Your task to perform on an android device: Open CNN.com Image 0: 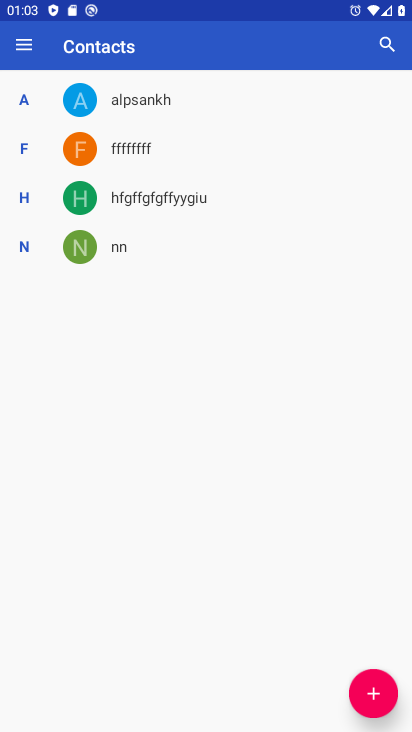
Step 0: press home button
Your task to perform on an android device: Open CNN.com Image 1: 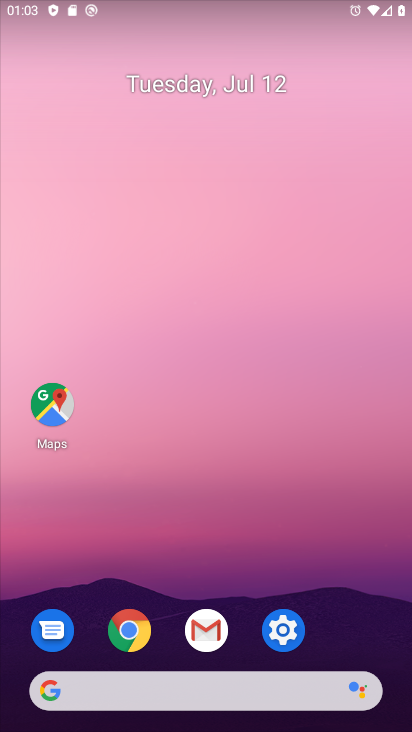
Step 1: click (63, 411)
Your task to perform on an android device: Open CNN.com Image 2: 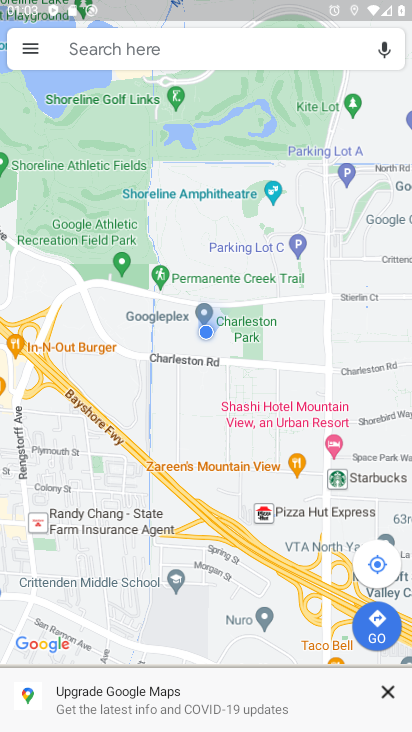
Step 2: press home button
Your task to perform on an android device: Open CNN.com Image 3: 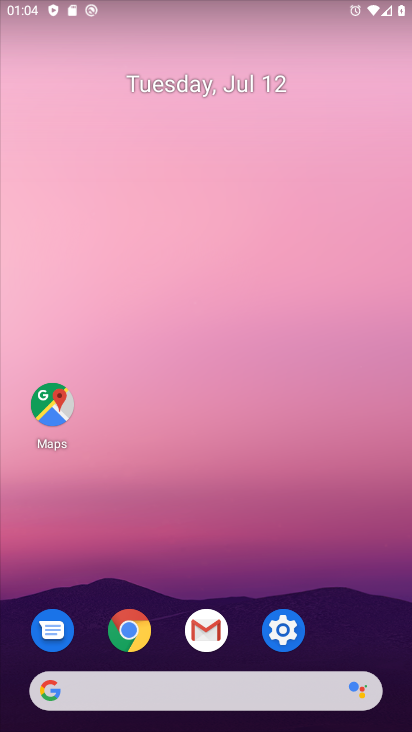
Step 3: click (138, 620)
Your task to perform on an android device: Open CNN.com Image 4: 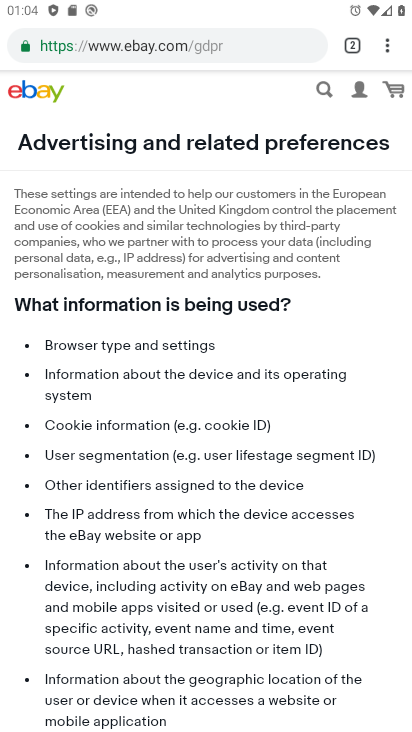
Step 4: click (353, 44)
Your task to perform on an android device: Open CNN.com Image 5: 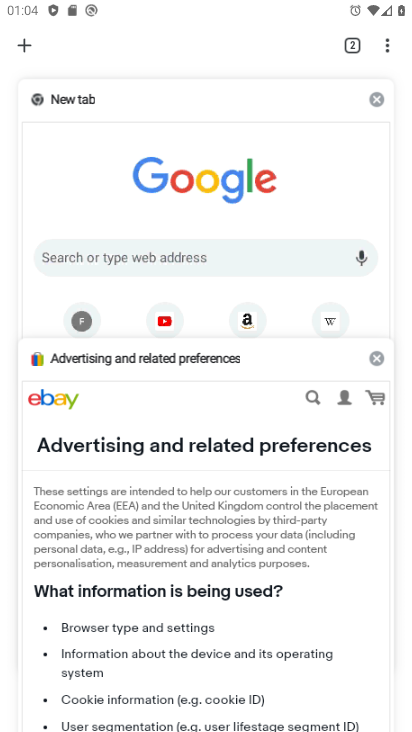
Step 5: click (30, 44)
Your task to perform on an android device: Open CNN.com Image 6: 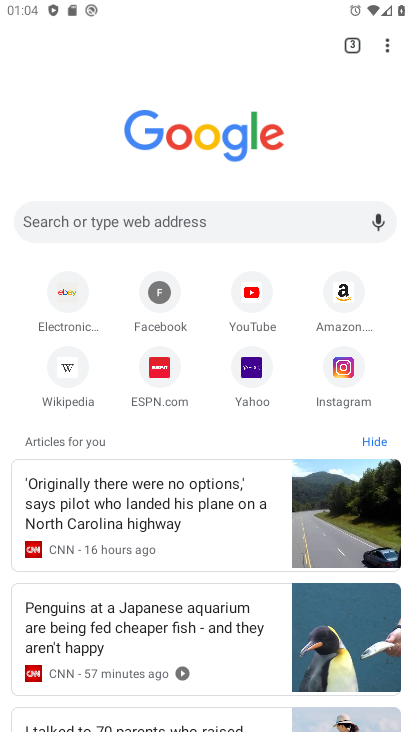
Step 6: click (113, 217)
Your task to perform on an android device: Open CNN.com Image 7: 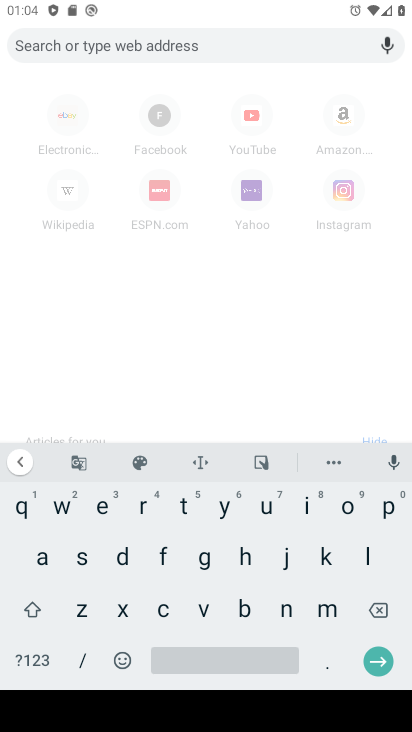
Step 7: click (160, 606)
Your task to perform on an android device: Open CNN.com Image 8: 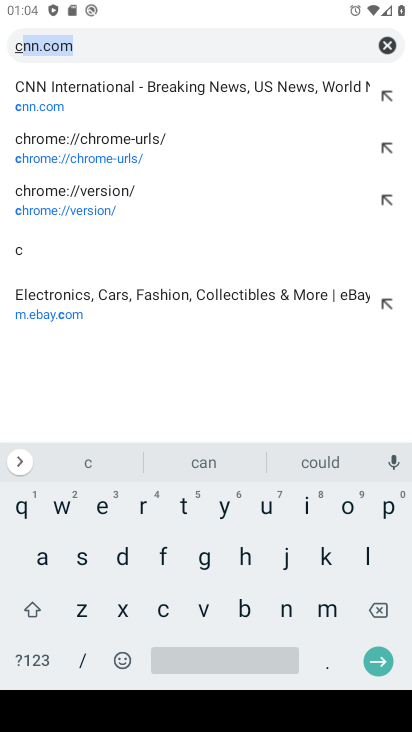
Step 8: click (285, 608)
Your task to perform on an android device: Open CNN.com Image 9: 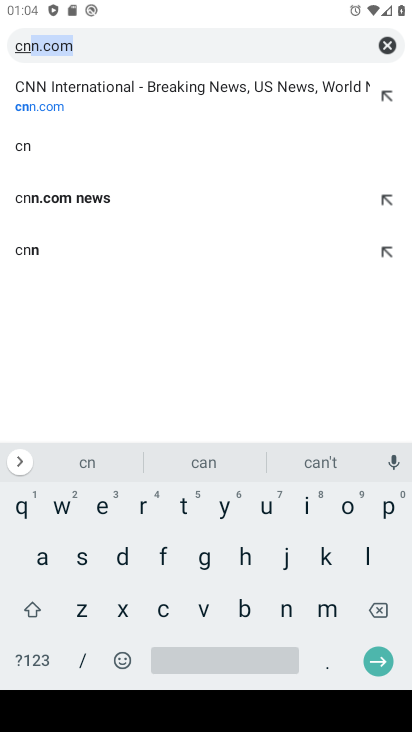
Step 9: click (102, 59)
Your task to perform on an android device: Open CNN.com Image 10: 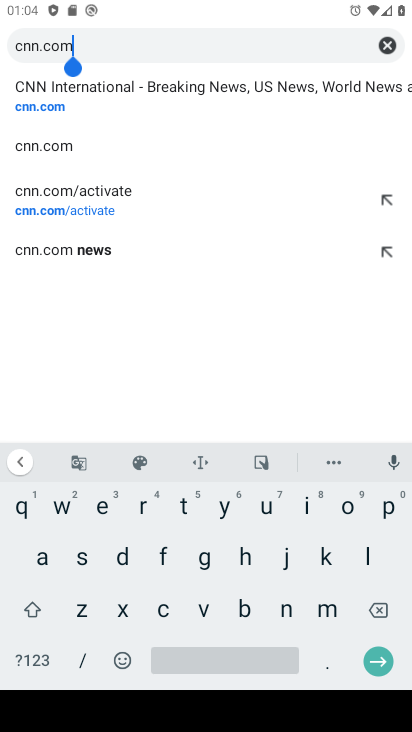
Step 10: click (380, 660)
Your task to perform on an android device: Open CNN.com Image 11: 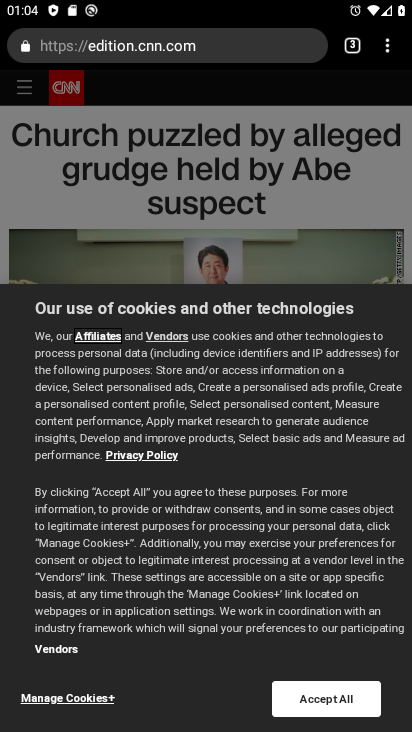
Step 11: click (306, 704)
Your task to perform on an android device: Open CNN.com Image 12: 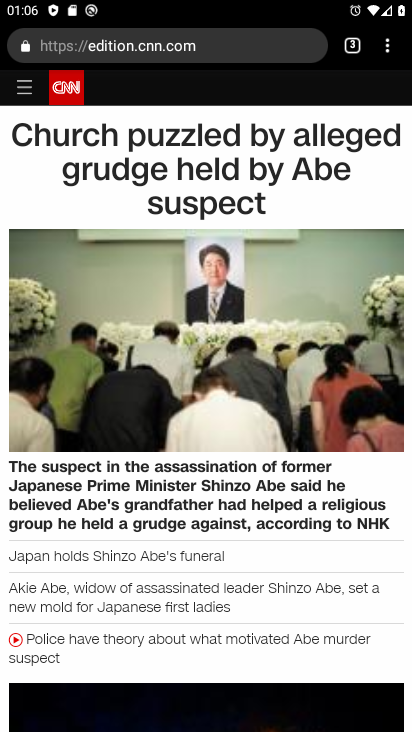
Step 12: task complete